Your task to perform on an android device: When is my next appointment? Image 0: 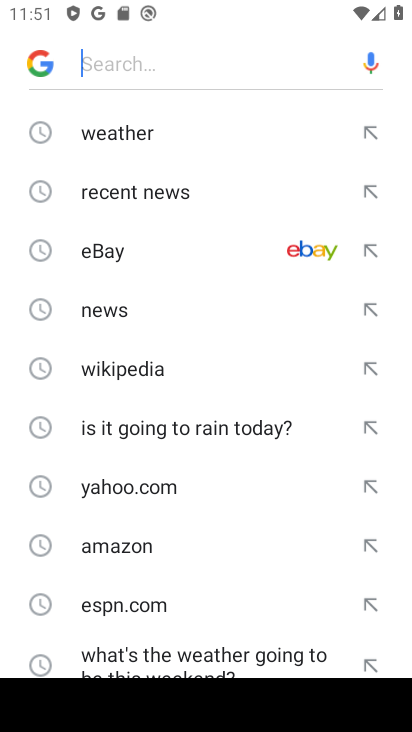
Step 0: press back button
Your task to perform on an android device: When is my next appointment? Image 1: 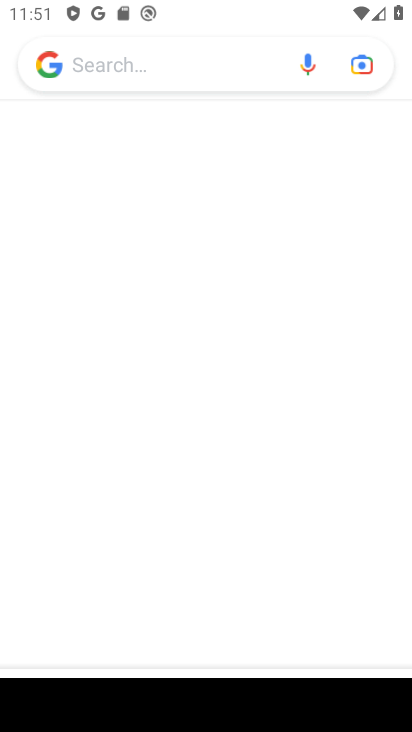
Step 1: press back button
Your task to perform on an android device: When is my next appointment? Image 2: 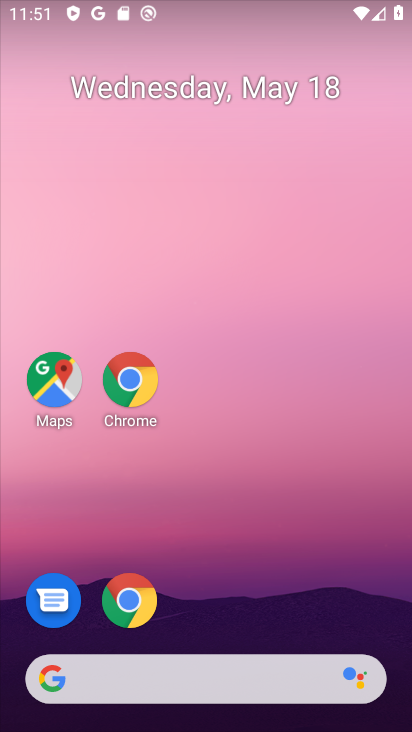
Step 2: drag from (377, 665) to (107, 88)
Your task to perform on an android device: When is my next appointment? Image 3: 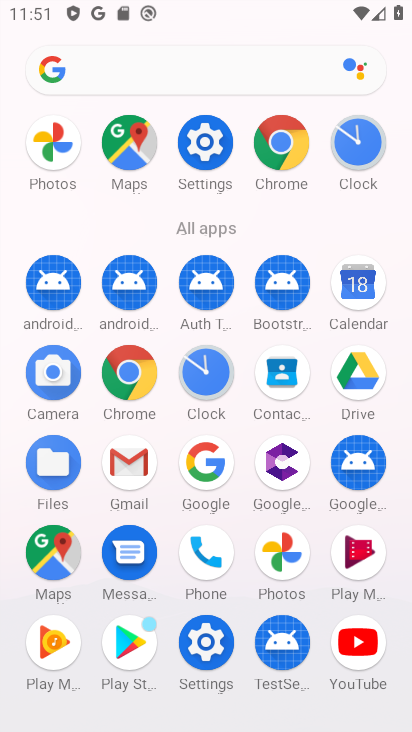
Step 3: click (204, 373)
Your task to perform on an android device: When is my next appointment? Image 4: 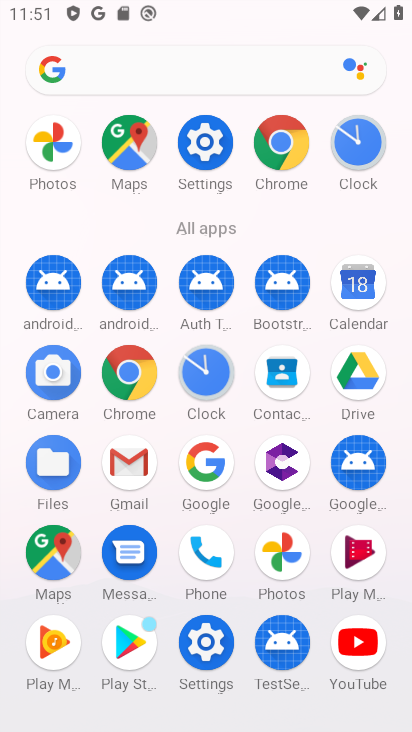
Step 4: click (204, 373)
Your task to perform on an android device: When is my next appointment? Image 5: 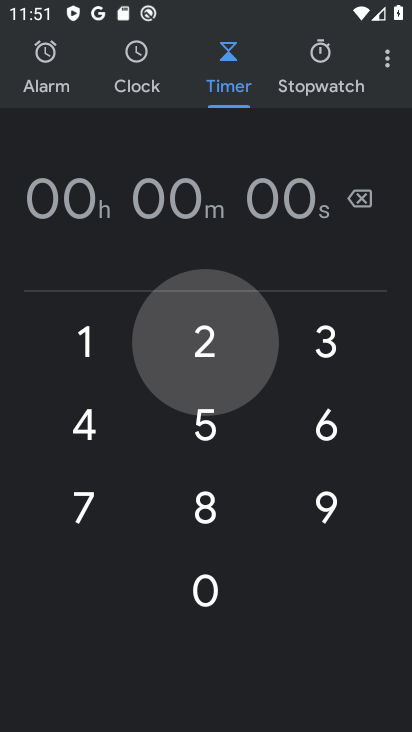
Step 5: click (205, 375)
Your task to perform on an android device: When is my next appointment? Image 6: 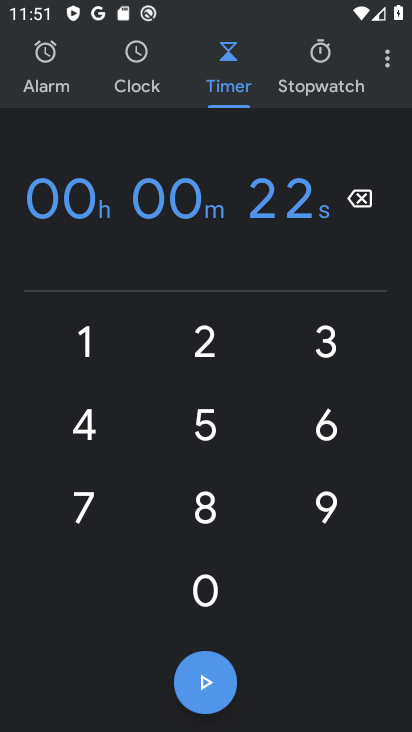
Step 6: click (380, 53)
Your task to perform on an android device: When is my next appointment? Image 7: 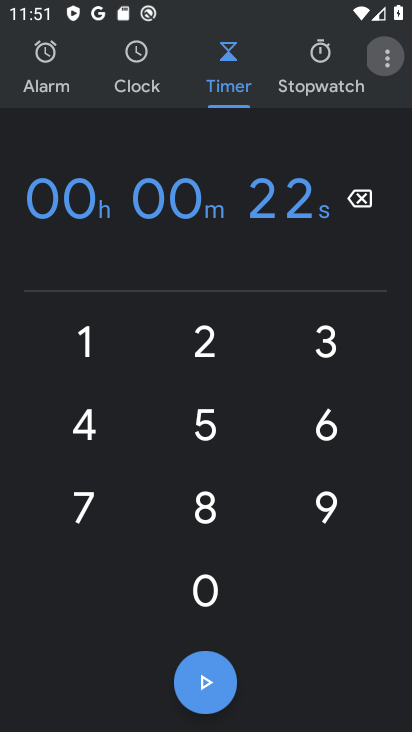
Step 7: click (380, 53)
Your task to perform on an android device: When is my next appointment? Image 8: 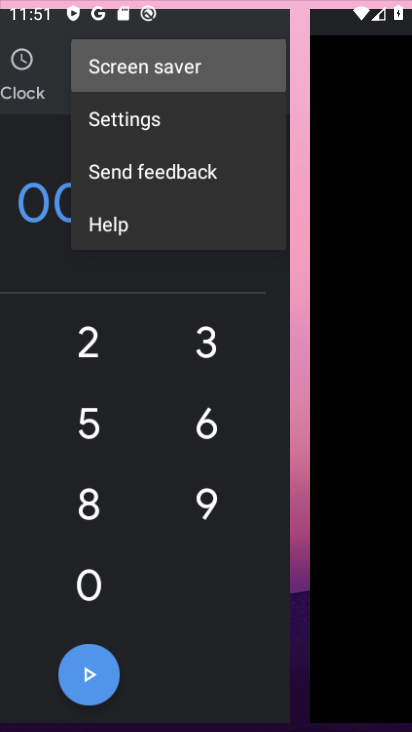
Step 8: click (385, 57)
Your task to perform on an android device: When is my next appointment? Image 9: 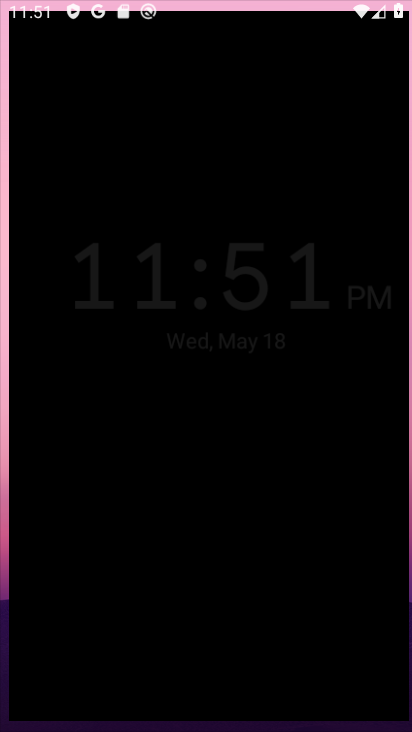
Step 9: click (385, 57)
Your task to perform on an android device: When is my next appointment? Image 10: 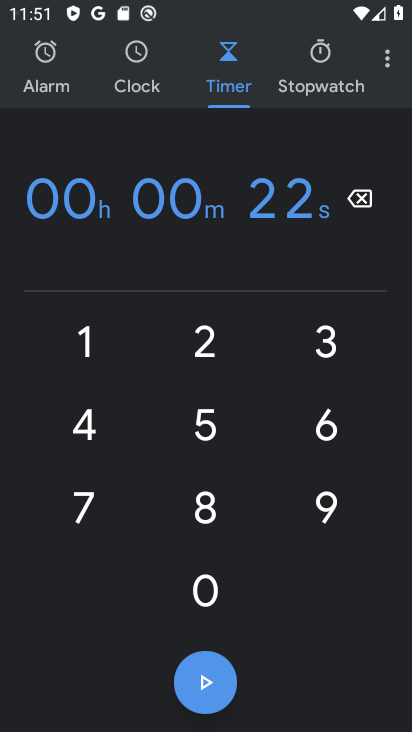
Step 10: press back button
Your task to perform on an android device: When is my next appointment? Image 11: 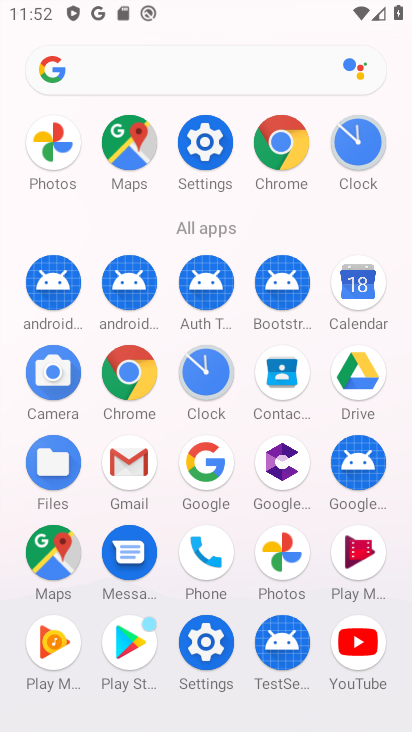
Step 11: click (205, 387)
Your task to perform on an android device: When is my next appointment? Image 12: 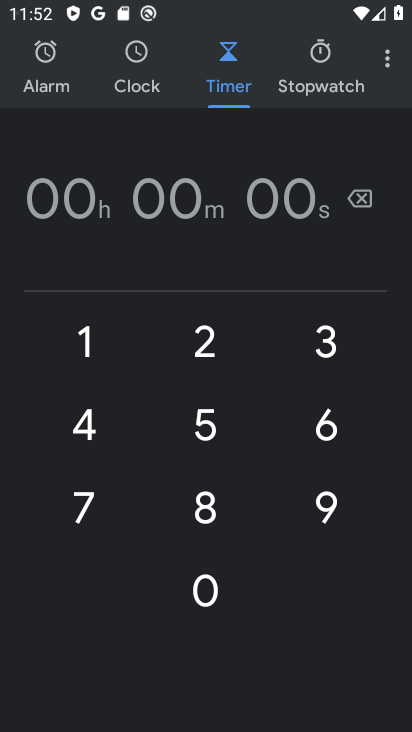
Step 12: press back button
Your task to perform on an android device: When is my next appointment? Image 13: 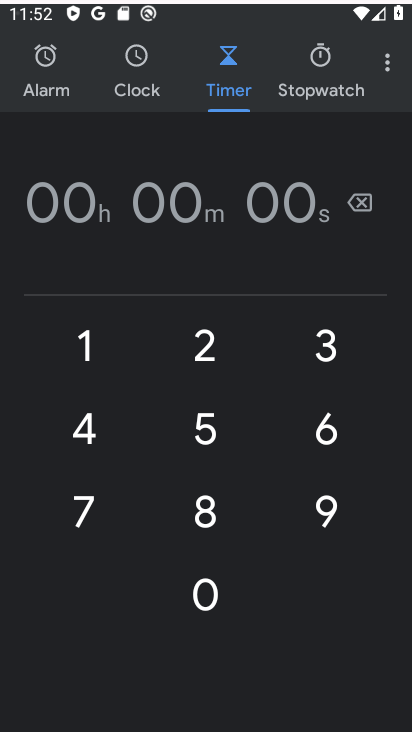
Step 13: press back button
Your task to perform on an android device: When is my next appointment? Image 14: 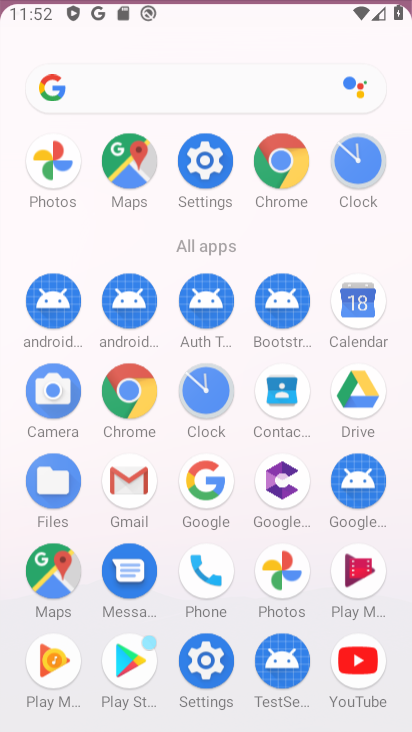
Step 14: press back button
Your task to perform on an android device: When is my next appointment? Image 15: 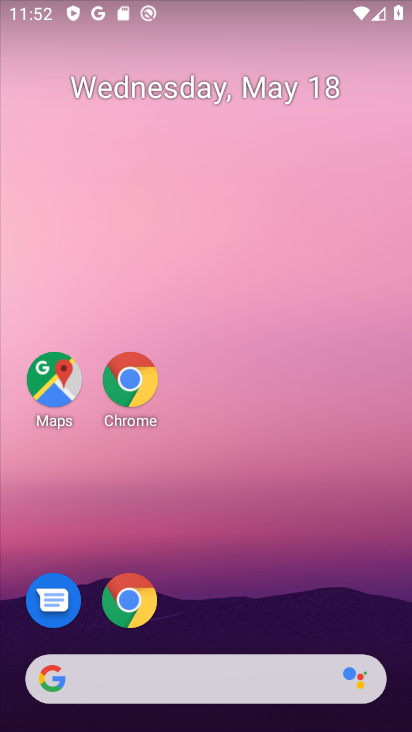
Step 15: press back button
Your task to perform on an android device: When is my next appointment? Image 16: 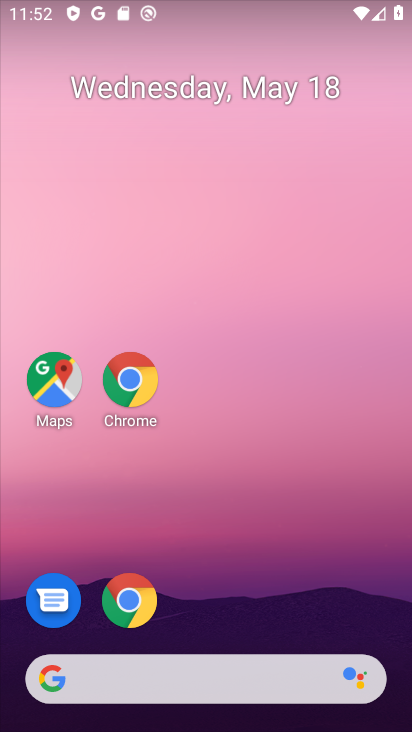
Step 16: drag from (278, 240) to (224, 14)
Your task to perform on an android device: When is my next appointment? Image 17: 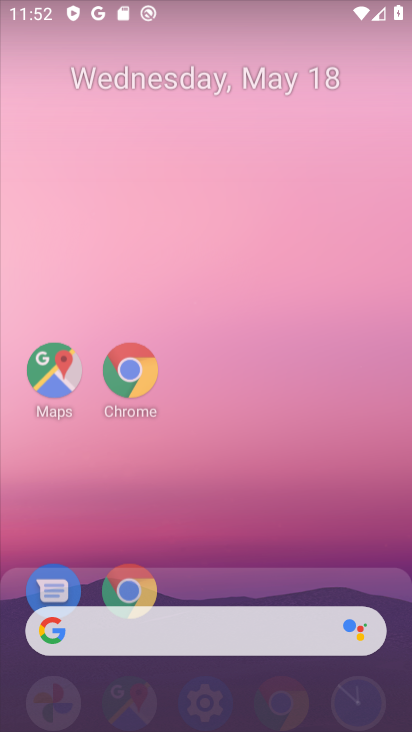
Step 17: drag from (271, 429) to (158, 57)
Your task to perform on an android device: When is my next appointment? Image 18: 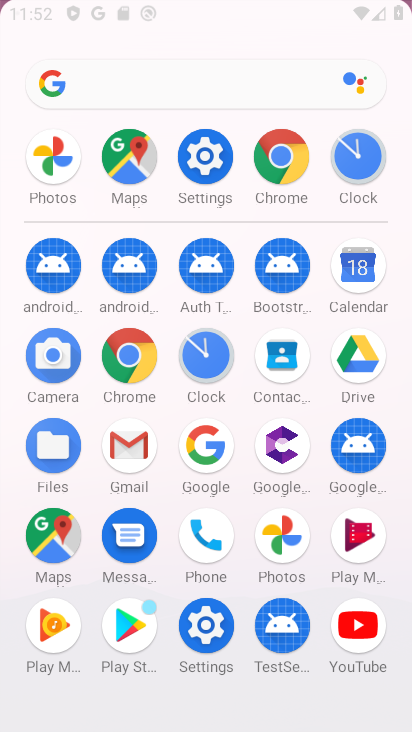
Step 18: drag from (191, 216) to (137, 15)
Your task to perform on an android device: When is my next appointment? Image 19: 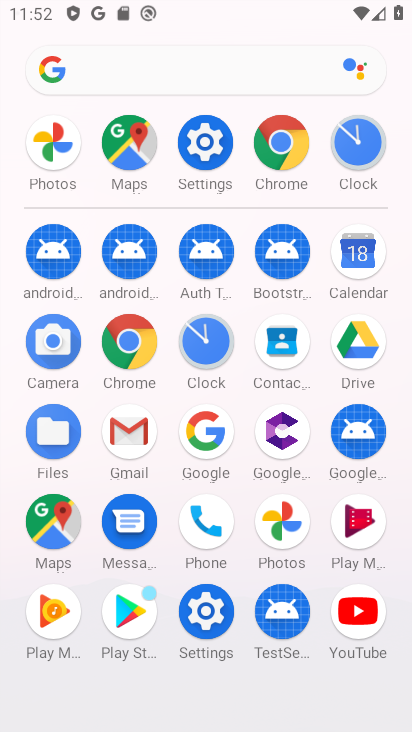
Step 19: click (350, 262)
Your task to perform on an android device: When is my next appointment? Image 20: 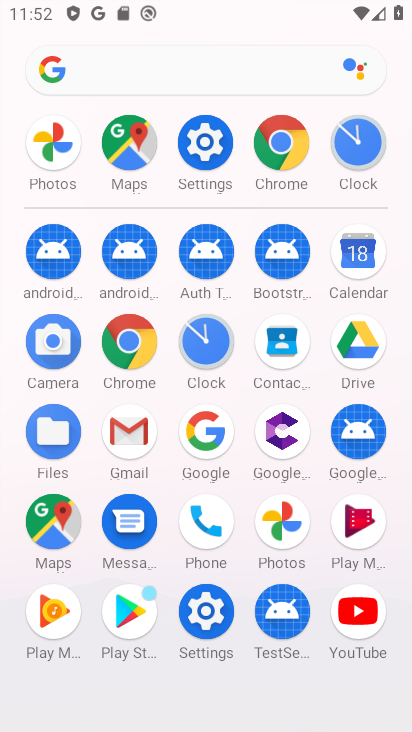
Step 20: click (350, 262)
Your task to perform on an android device: When is my next appointment? Image 21: 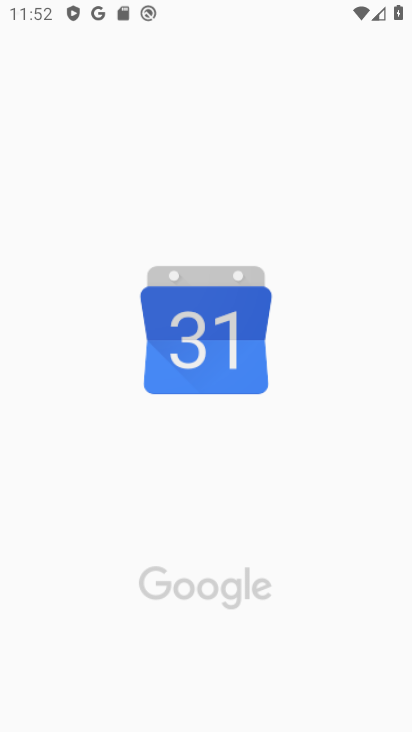
Step 21: click (352, 260)
Your task to perform on an android device: When is my next appointment? Image 22: 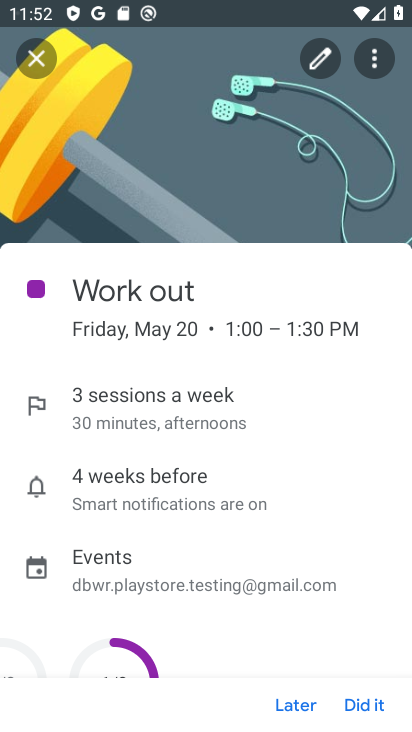
Step 22: task complete